Your task to perform on an android device: When is my next appointment? Image 0: 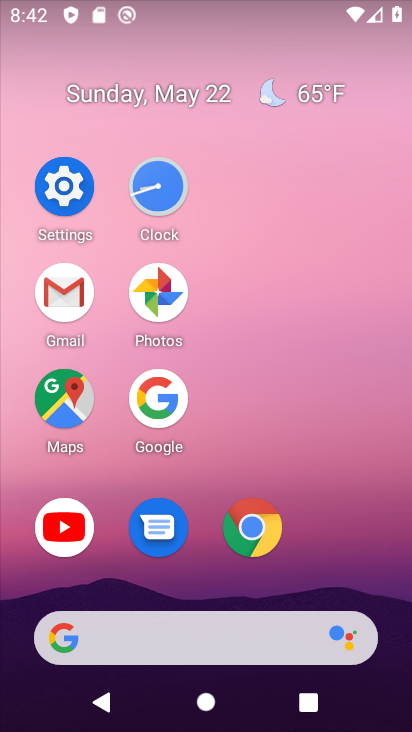
Step 0: drag from (279, 575) to (277, 96)
Your task to perform on an android device: When is my next appointment? Image 1: 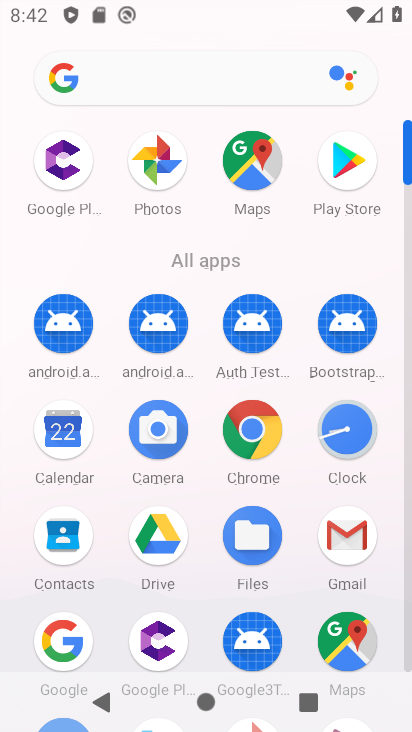
Step 1: drag from (71, 431) to (234, 217)
Your task to perform on an android device: When is my next appointment? Image 2: 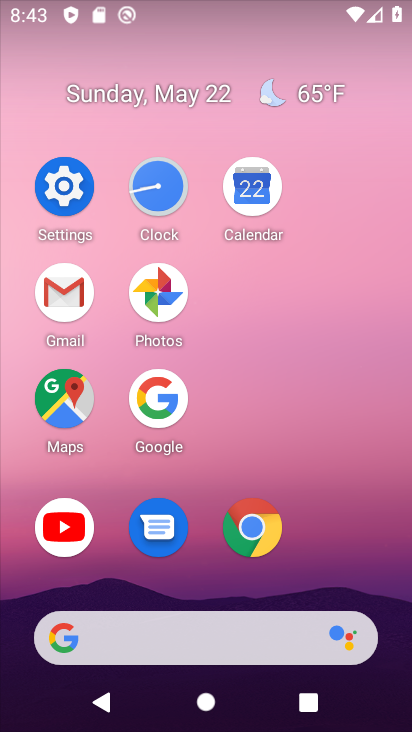
Step 2: click (253, 175)
Your task to perform on an android device: When is my next appointment? Image 3: 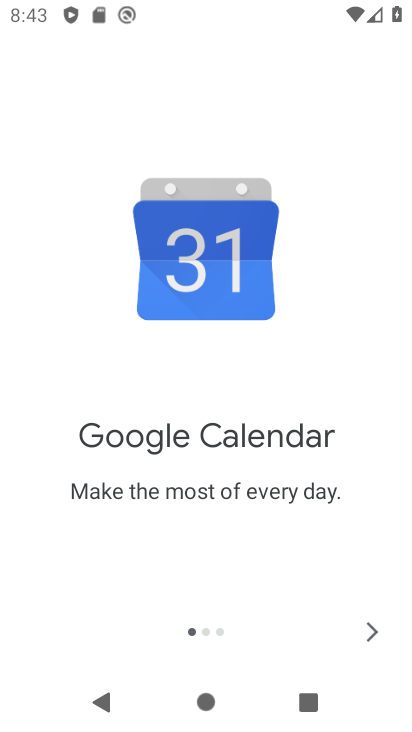
Step 3: click (361, 637)
Your task to perform on an android device: When is my next appointment? Image 4: 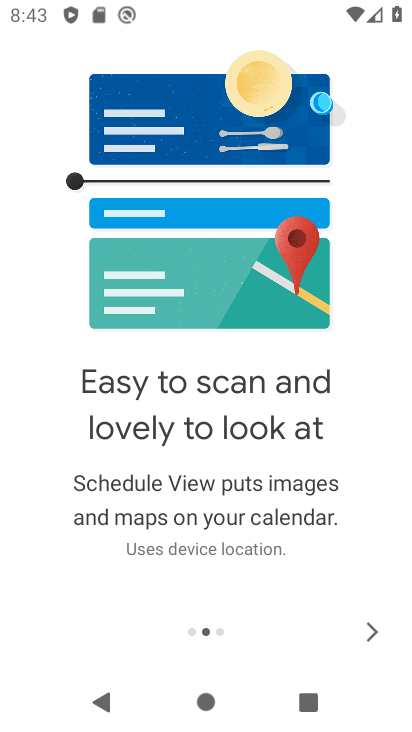
Step 4: click (361, 637)
Your task to perform on an android device: When is my next appointment? Image 5: 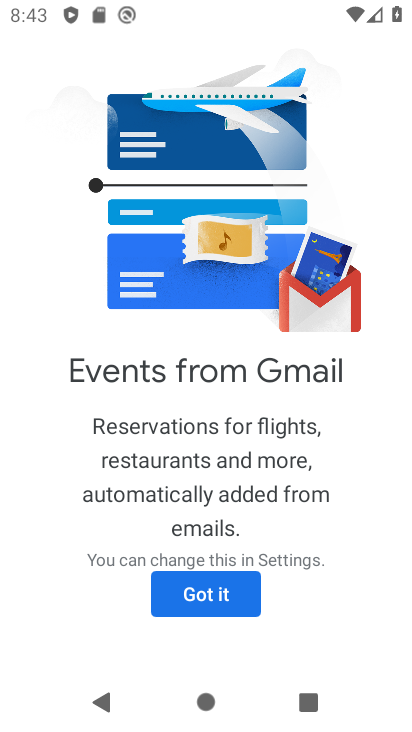
Step 5: click (361, 637)
Your task to perform on an android device: When is my next appointment? Image 6: 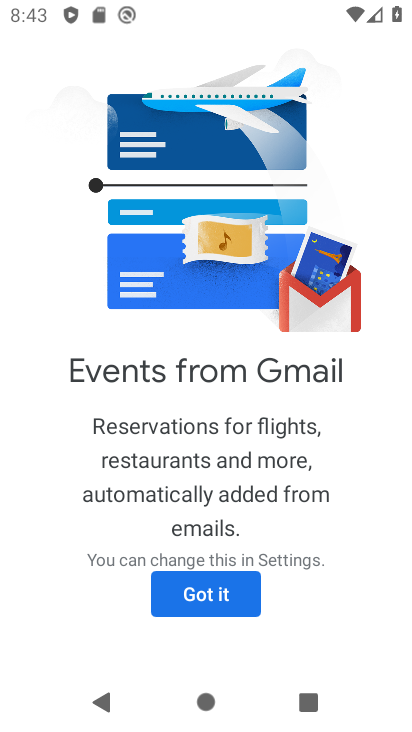
Step 6: click (242, 593)
Your task to perform on an android device: When is my next appointment? Image 7: 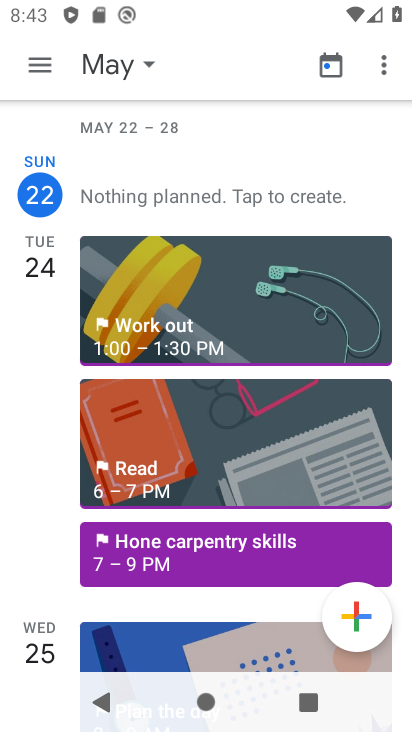
Step 7: click (49, 257)
Your task to perform on an android device: When is my next appointment? Image 8: 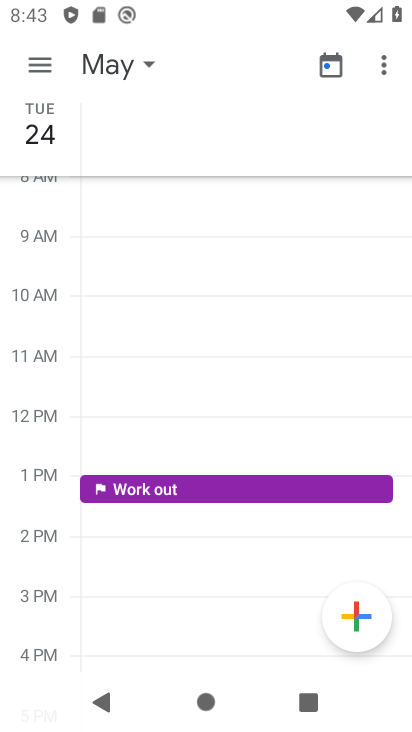
Step 8: task complete